Your task to perform on an android device: add a label to a message in the gmail app Image 0: 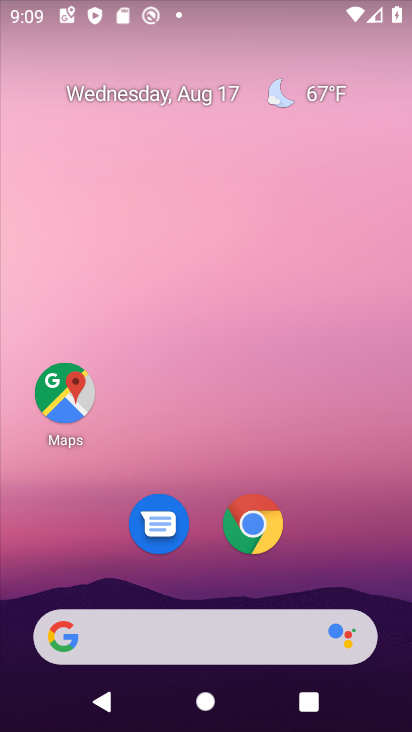
Step 0: drag from (334, 508) to (363, 28)
Your task to perform on an android device: add a label to a message in the gmail app Image 1: 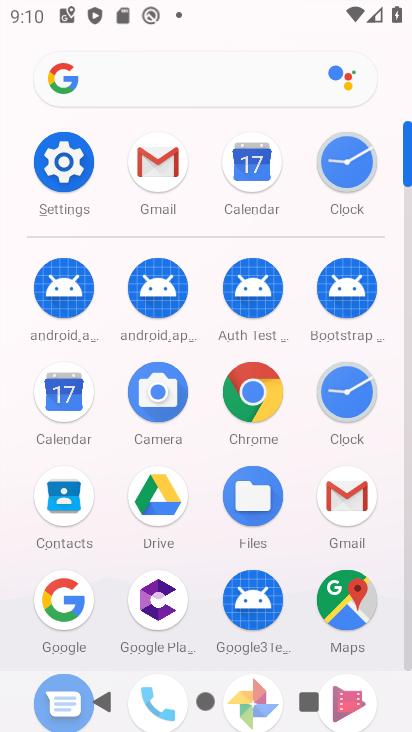
Step 1: click (155, 157)
Your task to perform on an android device: add a label to a message in the gmail app Image 2: 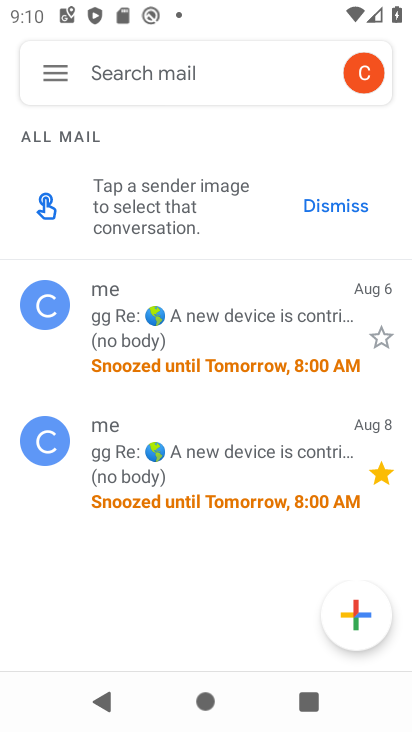
Step 2: click (381, 331)
Your task to perform on an android device: add a label to a message in the gmail app Image 3: 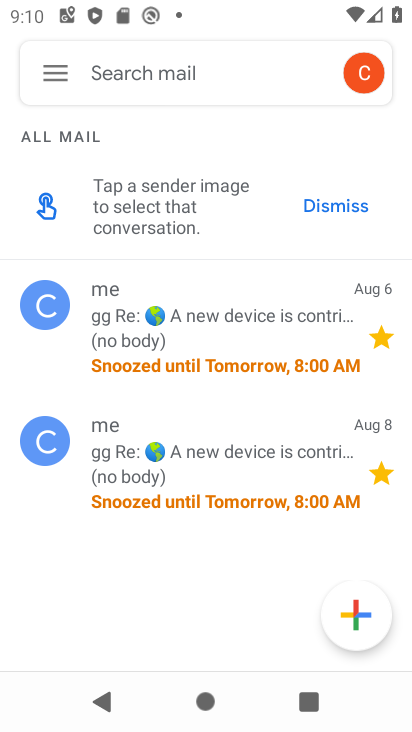
Step 3: task complete